Your task to perform on an android device: turn off priority inbox in the gmail app Image 0: 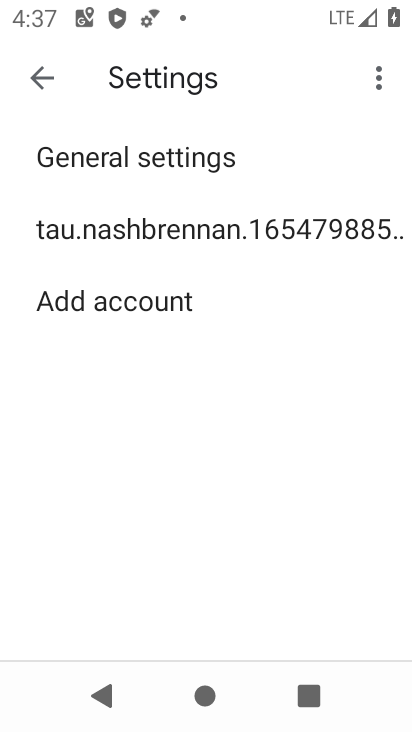
Step 0: press home button
Your task to perform on an android device: turn off priority inbox in the gmail app Image 1: 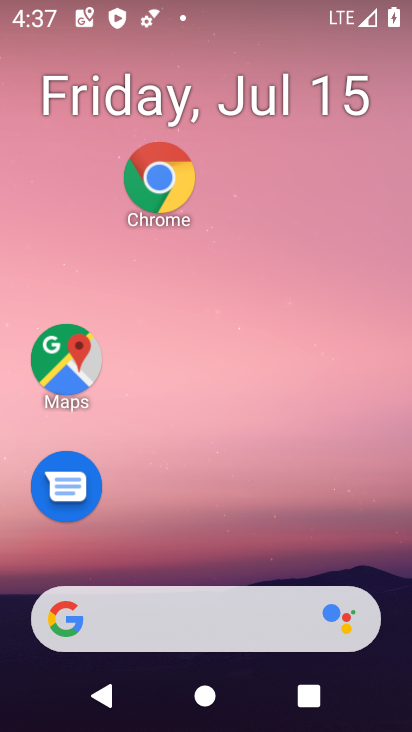
Step 1: drag from (215, 287) to (258, 49)
Your task to perform on an android device: turn off priority inbox in the gmail app Image 2: 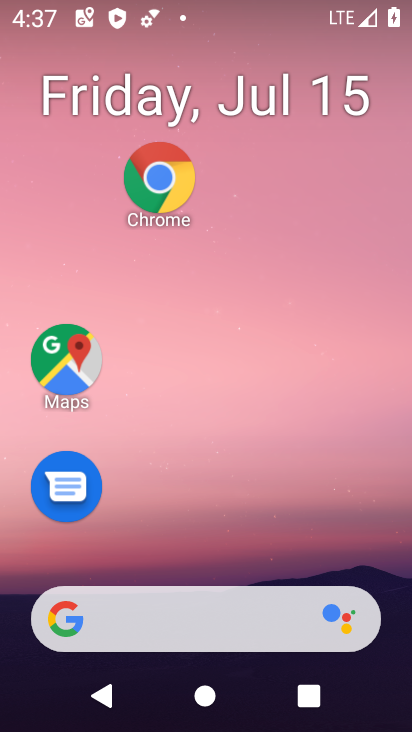
Step 2: drag from (205, 503) to (194, 87)
Your task to perform on an android device: turn off priority inbox in the gmail app Image 3: 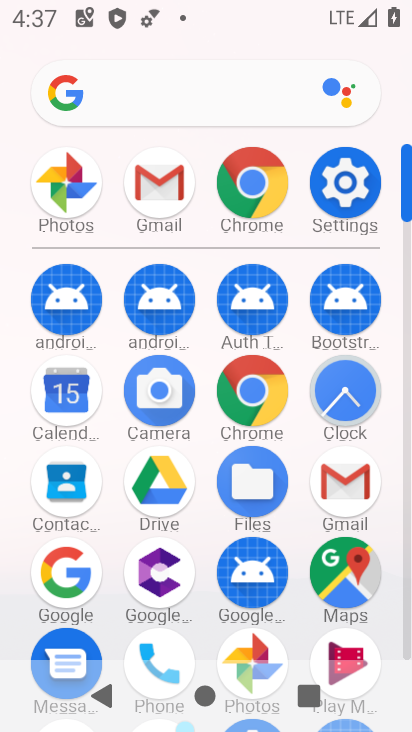
Step 3: click (164, 231)
Your task to perform on an android device: turn off priority inbox in the gmail app Image 4: 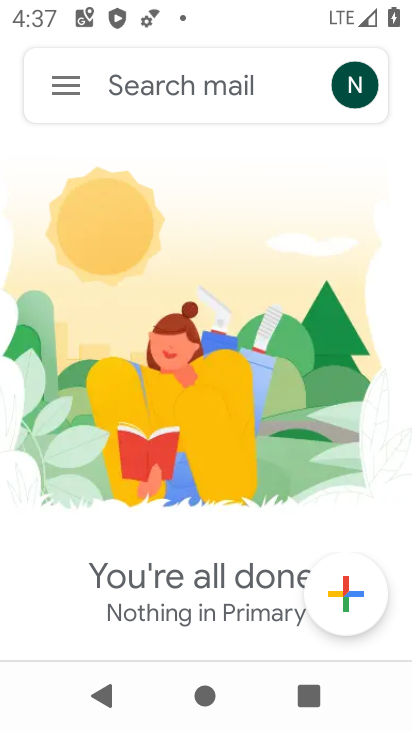
Step 4: click (68, 87)
Your task to perform on an android device: turn off priority inbox in the gmail app Image 5: 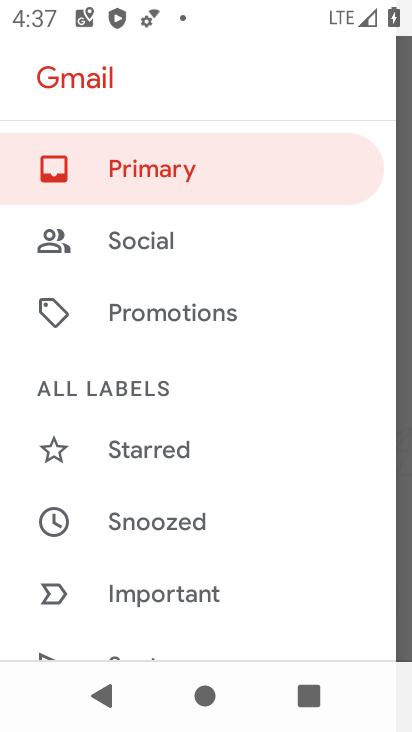
Step 5: drag from (148, 452) to (209, 105)
Your task to perform on an android device: turn off priority inbox in the gmail app Image 6: 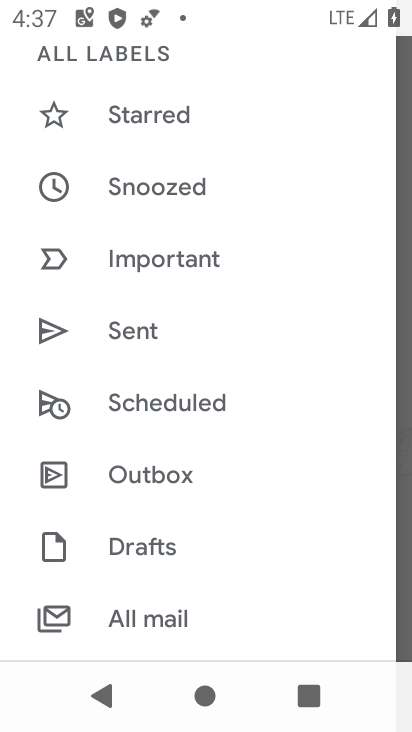
Step 6: click (321, 221)
Your task to perform on an android device: turn off priority inbox in the gmail app Image 7: 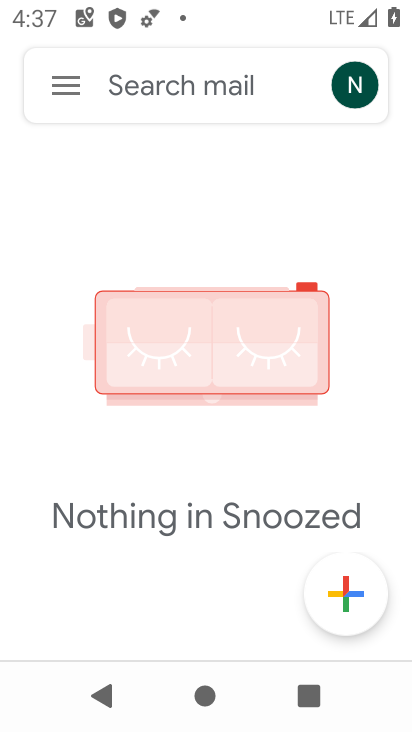
Step 7: click (60, 83)
Your task to perform on an android device: turn off priority inbox in the gmail app Image 8: 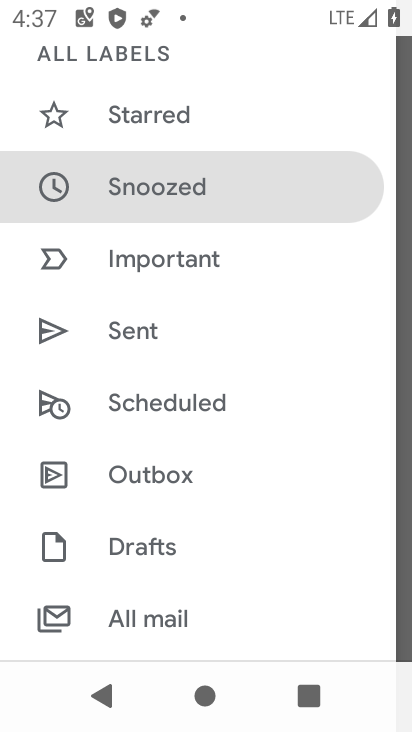
Step 8: click (151, 259)
Your task to perform on an android device: turn off priority inbox in the gmail app Image 9: 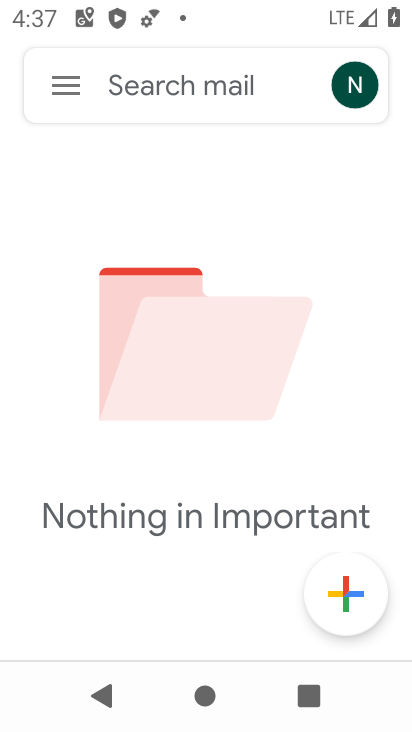
Step 9: click (61, 89)
Your task to perform on an android device: turn off priority inbox in the gmail app Image 10: 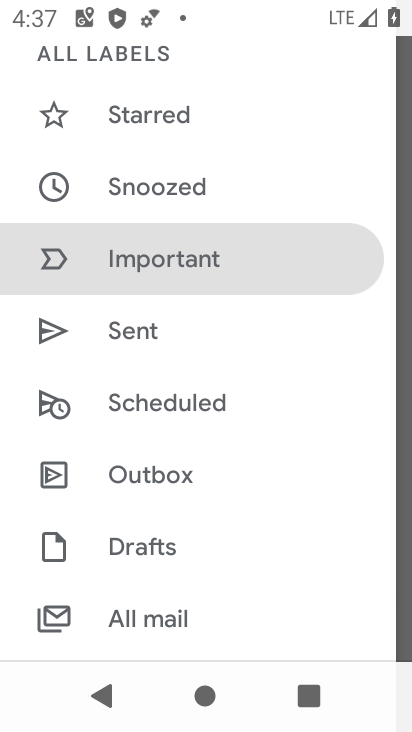
Step 10: drag from (180, 383) to (224, 202)
Your task to perform on an android device: turn off priority inbox in the gmail app Image 11: 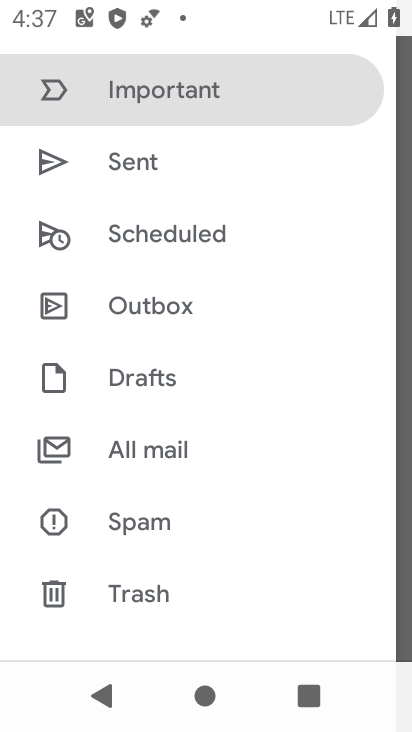
Step 11: drag from (215, 629) to (217, 66)
Your task to perform on an android device: turn off priority inbox in the gmail app Image 12: 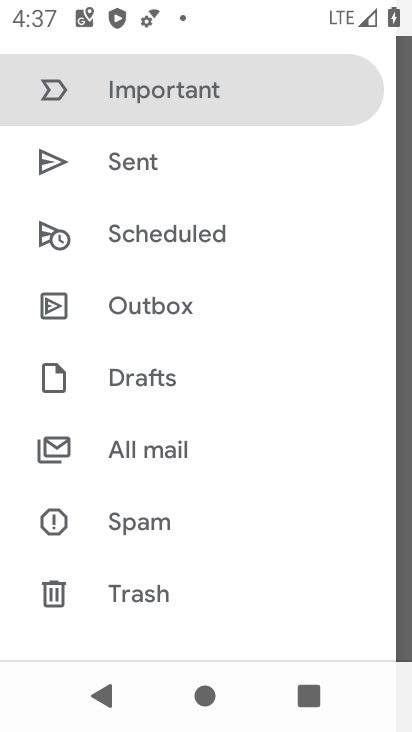
Step 12: drag from (174, 508) to (174, 286)
Your task to perform on an android device: turn off priority inbox in the gmail app Image 13: 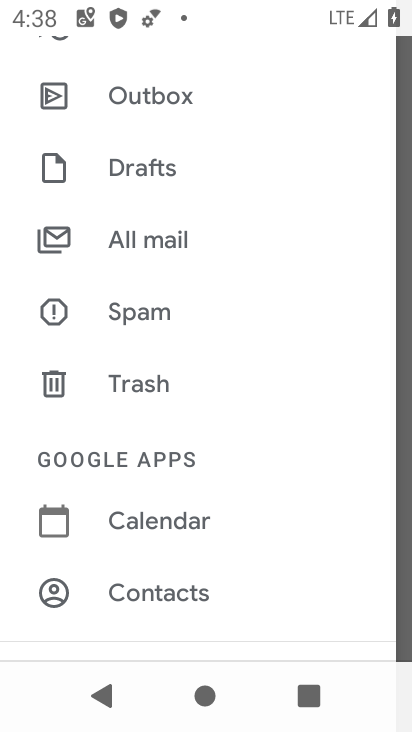
Step 13: drag from (176, 492) to (184, 371)
Your task to perform on an android device: turn off priority inbox in the gmail app Image 14: 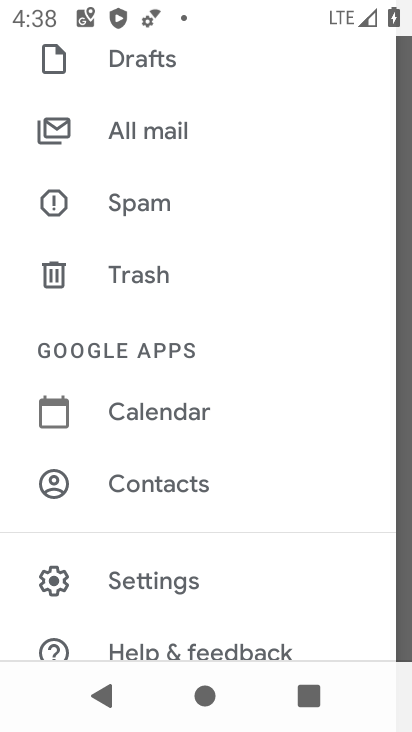
Step 14: click (156, 568)
Your task to perform on an android device: turn off priority inbox in the gmail app Image 15: 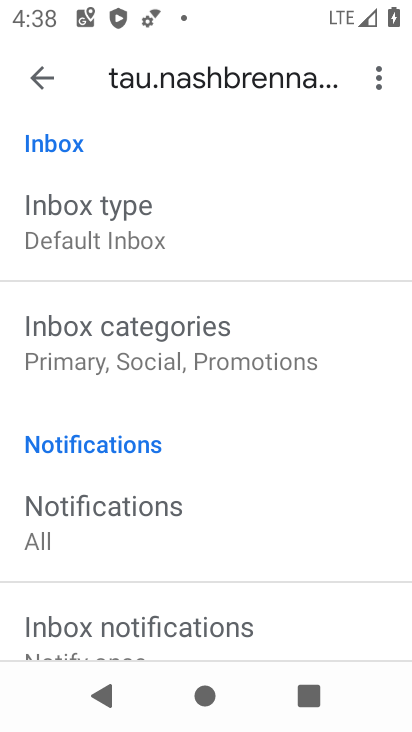
Step 15: click (67, 237)
Your task to perform on an android device: turn off priority inbox in the gmail app Image 16: 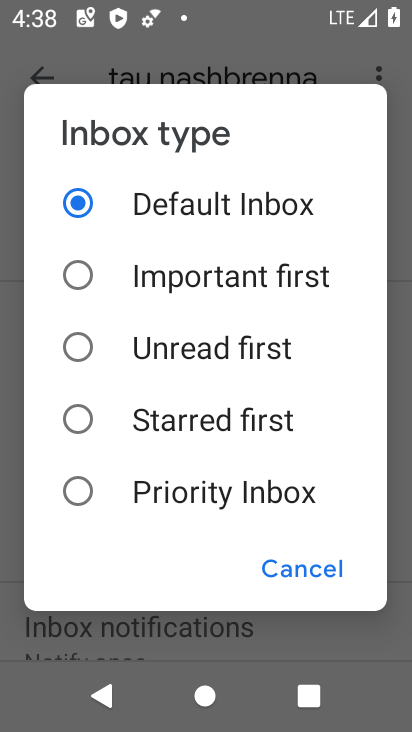
Step 16: task complete